Your task to perform on an android device: Open settings on Google Maps Image 0: 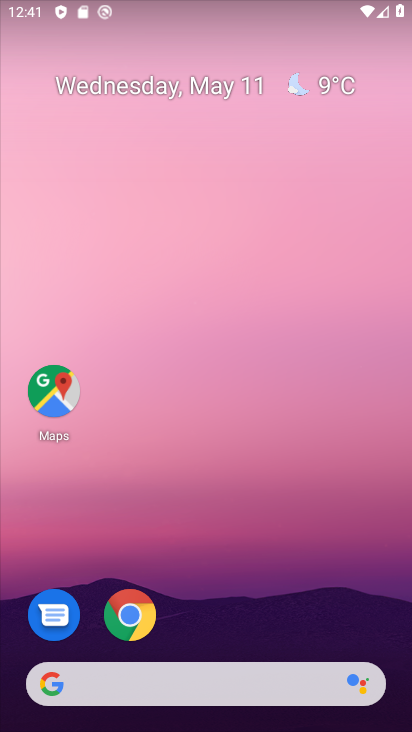
Step 0: drag from (242, 578) to (257, 174)
Your task to perform on an android device: Open settings on Google Maps Image 1: 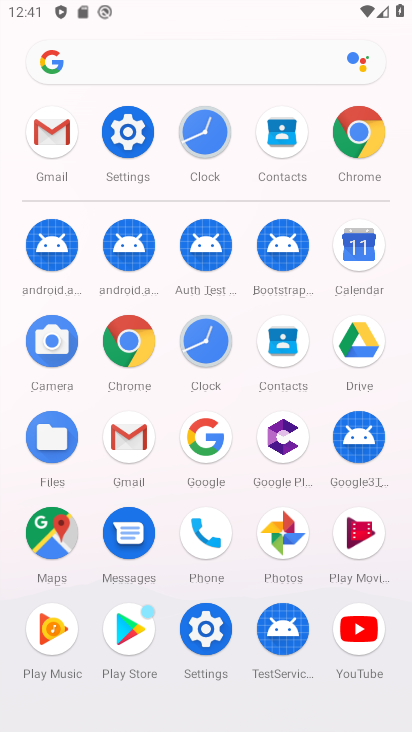
Step 1: click (49, 531)
Your task to perform on an android device: Open settings on Google Maps Image 2: 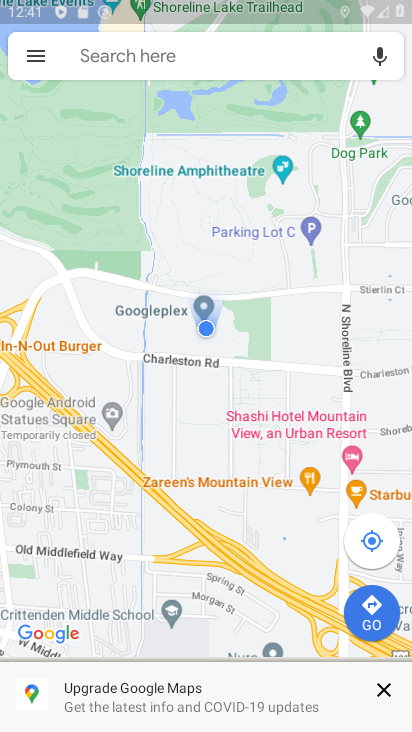
Step 2: task complete